Your task to perform on an android device: set the timer Image 0: 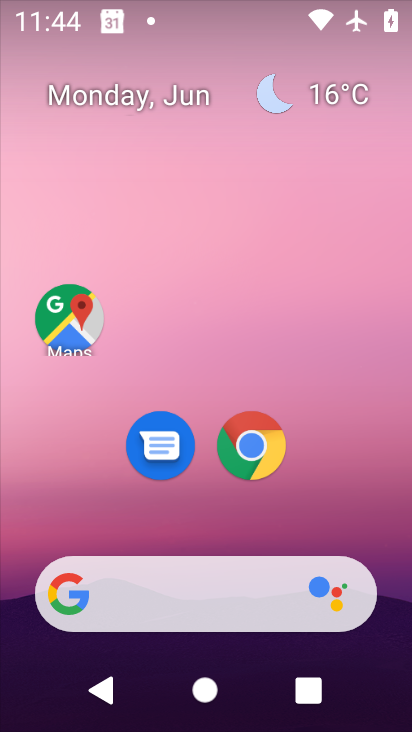
Step 0: drag from (381, 551) to (369, 145)
Your task to perform on an android device: set the timer Image 1: 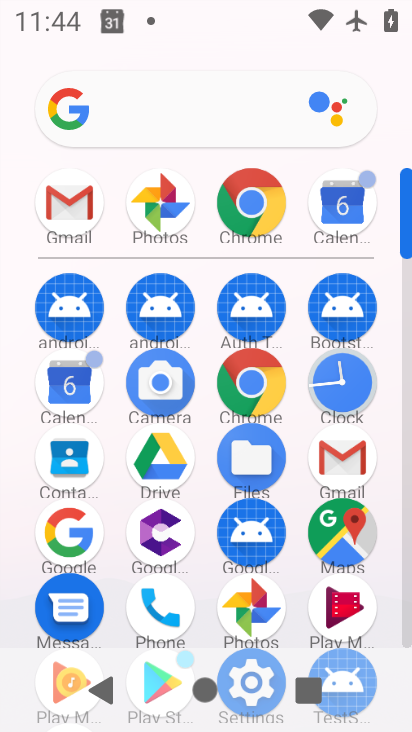
Step 1: click (321, 387)
Your task to perform on an android device: set the timer Image 2: 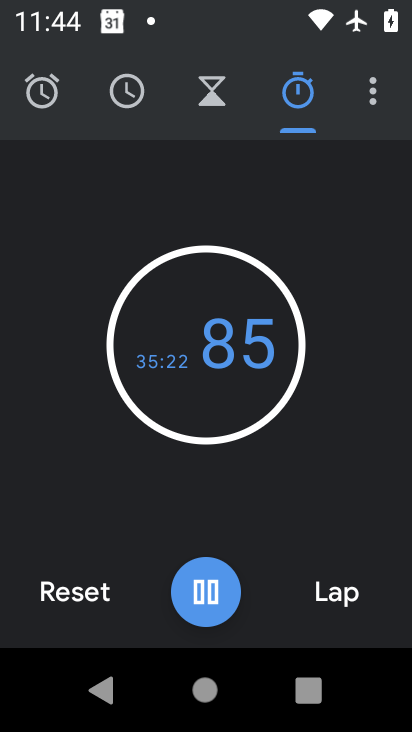
Step 2: click (217, 97)
Your task to perform on an android device: set the timer Image 3: 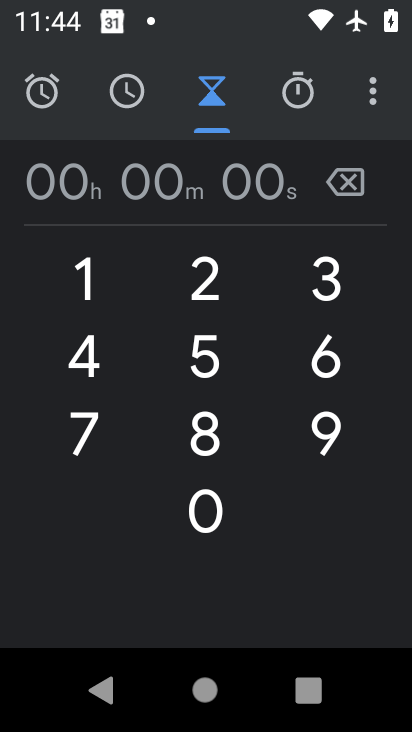
Step 3: click (87, 373)
Your task to perform on an android device: set the timer Image 4: 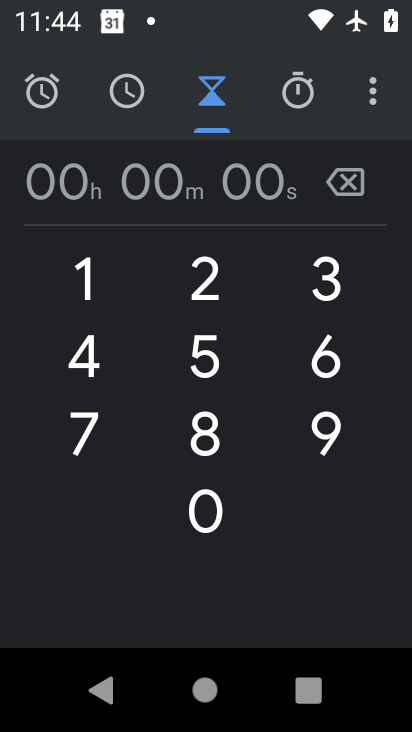
Step 4: click (86, 372)
Your task to perform on an android device: set the timer Image 5: 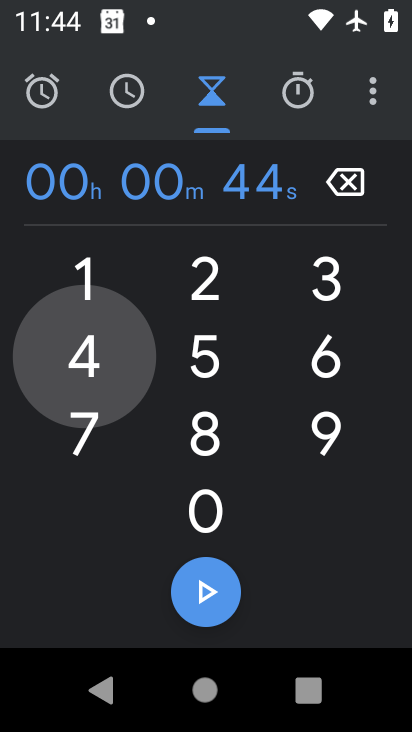
Step 5: click (86, 353)
Your task to perform on an android device: set the timer Image 6: 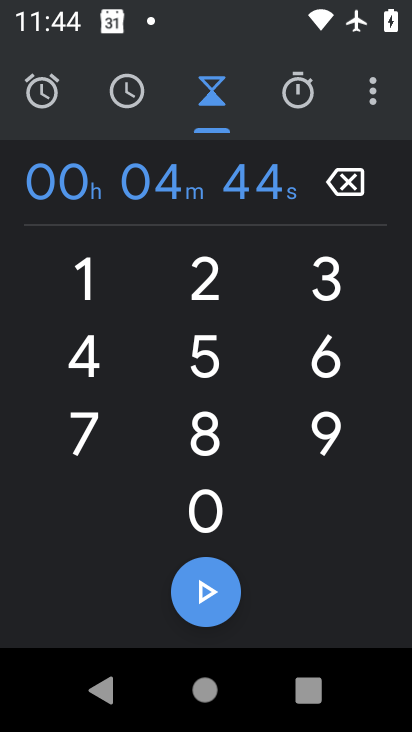
Step 6: click (214, 360)
Your task to perform on an android device: set the timer Image 7: 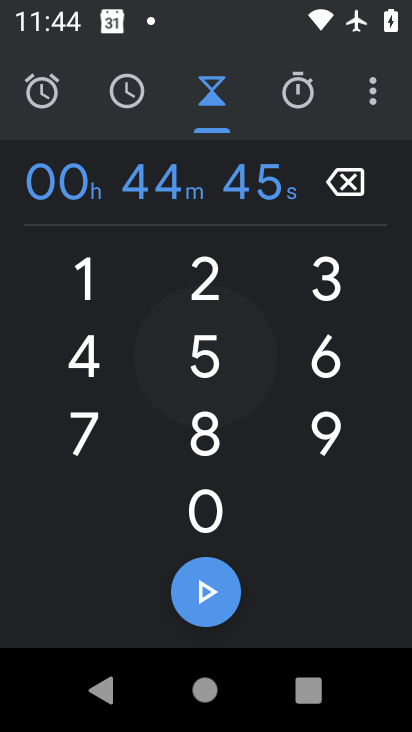
Step 7: click (214, 359)
Your task to perform on an android device: set the timer Image 8: 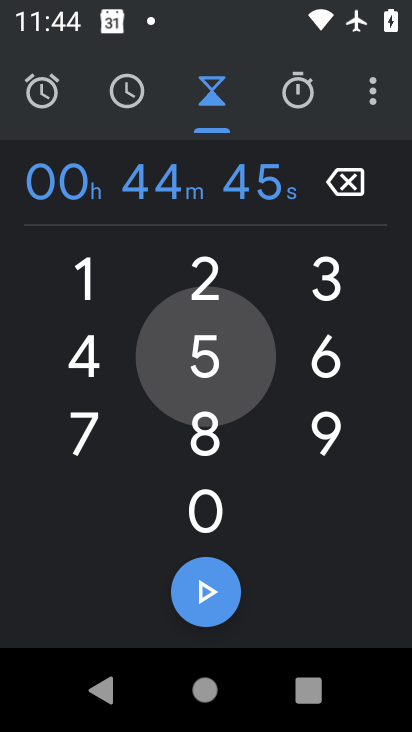
Step 8: click (214, 359)
Your task to perform on an android device: set the timer Image 9: 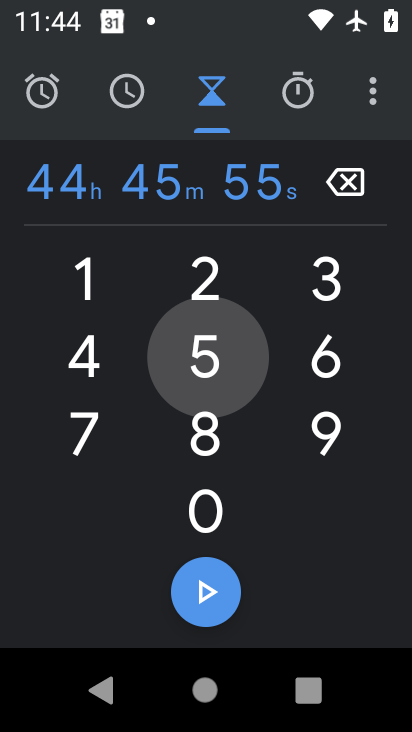
Step 9: click (214, 359)
Your task to perform on an android device: set the timer Image 10: 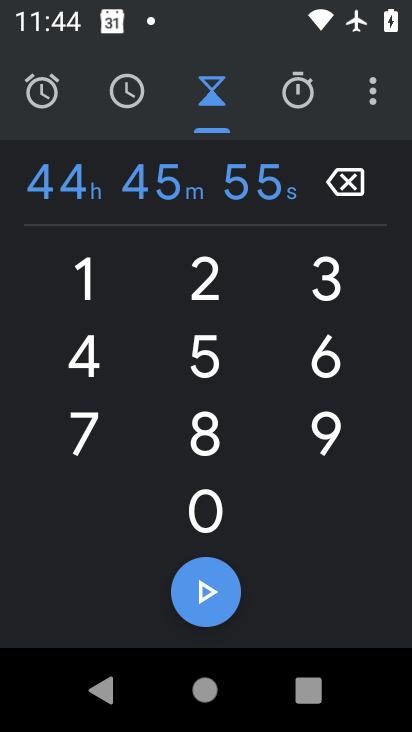
Step 10: click (216, 362)
Your task to perform on an android device: set the timer Image 11: 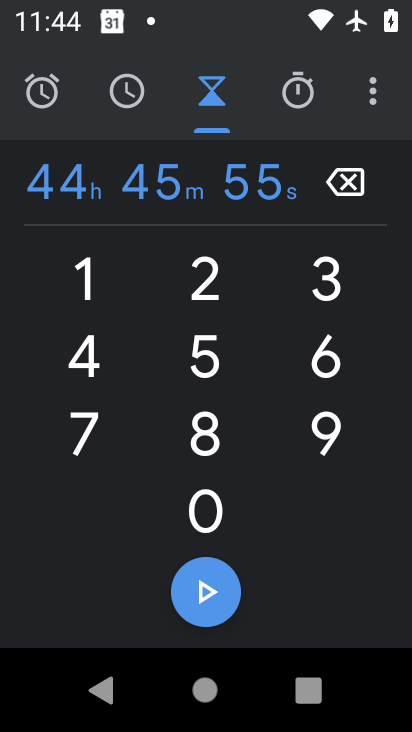
Step 11: click (104, 277)
Your task to perform on an android device: set the timer Image 12: 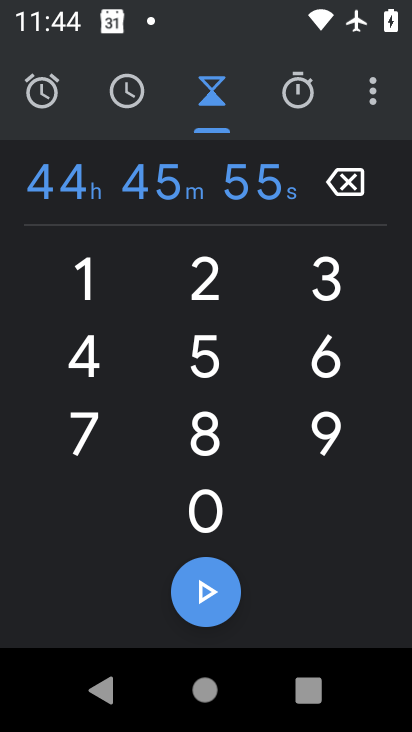
Step 12: click (43, 177)
Your task to perform on an android device: set the timer Image 13: 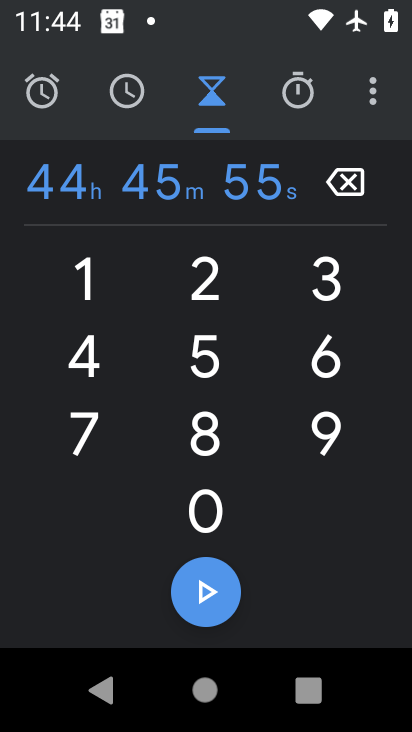
Step 13: click (214, 601)
Your task to perform on an android device: set the timer Image 14: 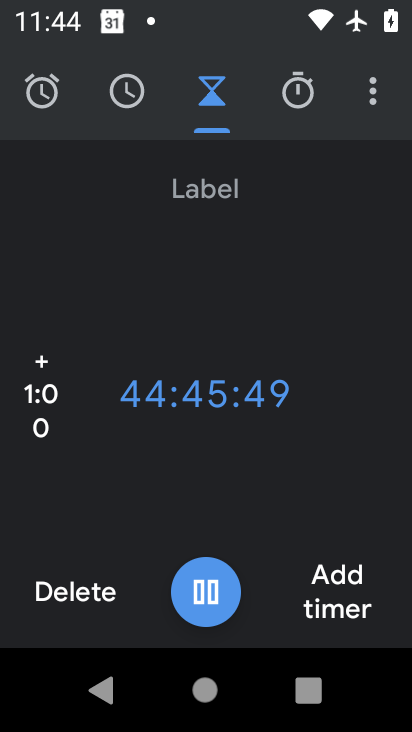
Step 14: task complete